Your task to perform on an android device: change the clock display to show seconds Image 0: 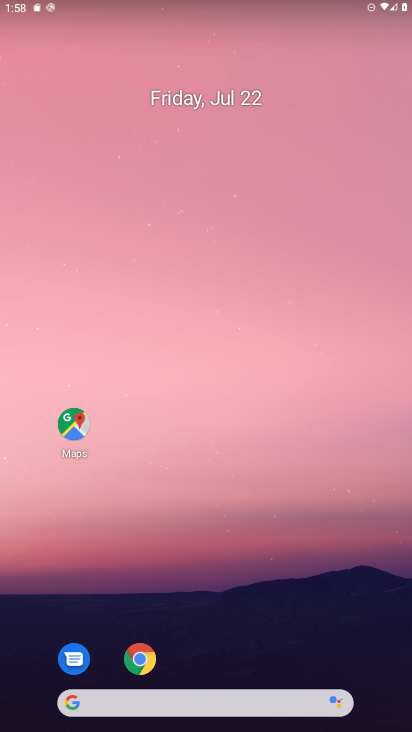
Step 0: drag from (209, 704) to (183, 186)
Your task to perform on an android device: change the clock display to show seconds Image 1: 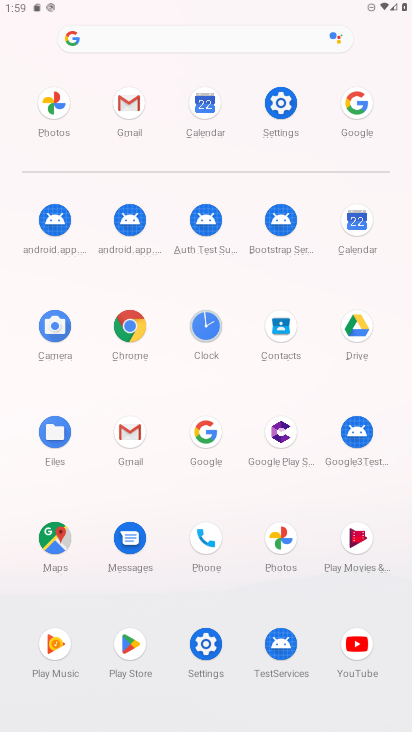
Step 1: click (204, 324)
Your task to perform on an android device: change the clock display to show seconds Image 2: 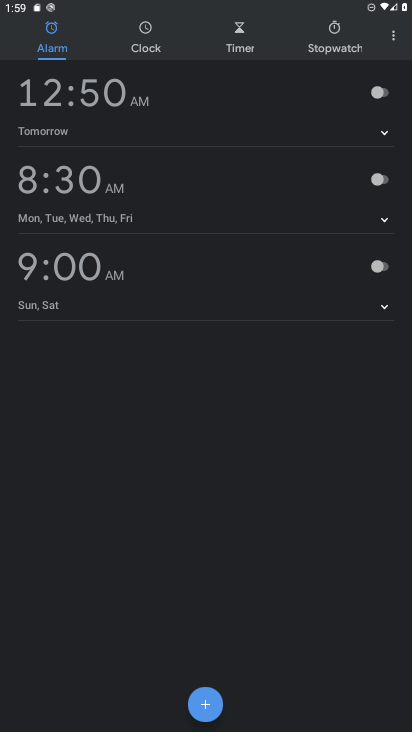
Step 2: click (393, 35)
Your task to perform on an android device: change the clock display to show seconds Image 3: 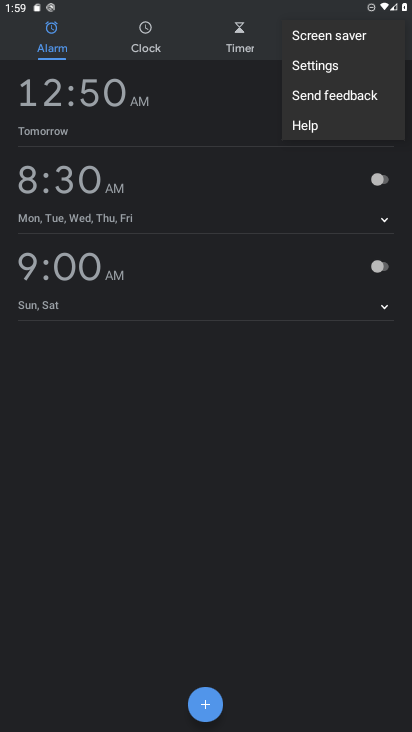
Step 3: click (316, 70)
Your task to perform on an android device: change the clock display to show seconds Image 4: 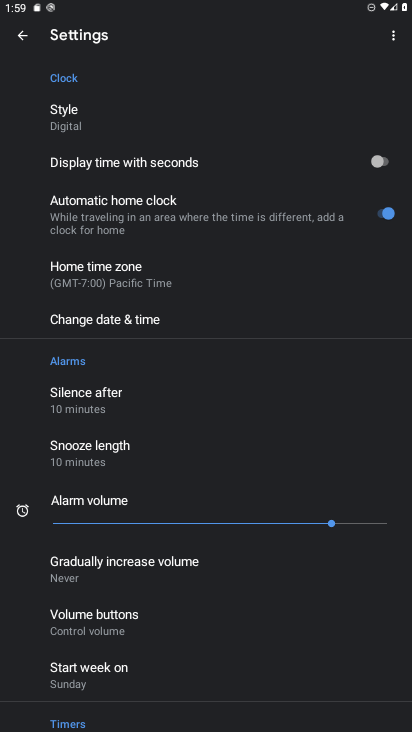
Step 4: click (375, 163)
Your task to perform on an android device: change the clock display to show seconds Image 5: 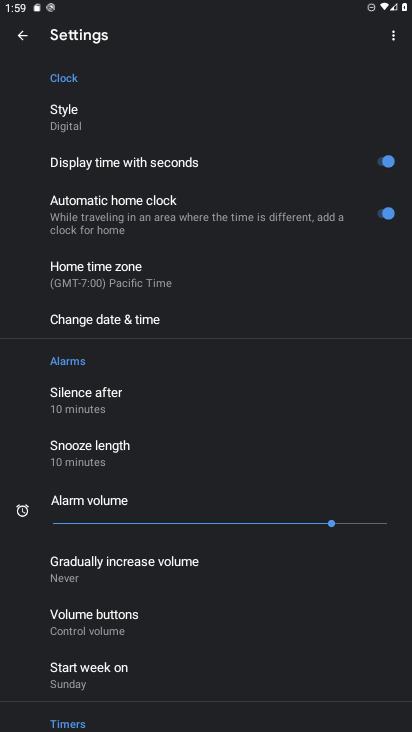
Step 5: task complete